Your task to perform on an android device: delete a single message in the gmail app Image 0: 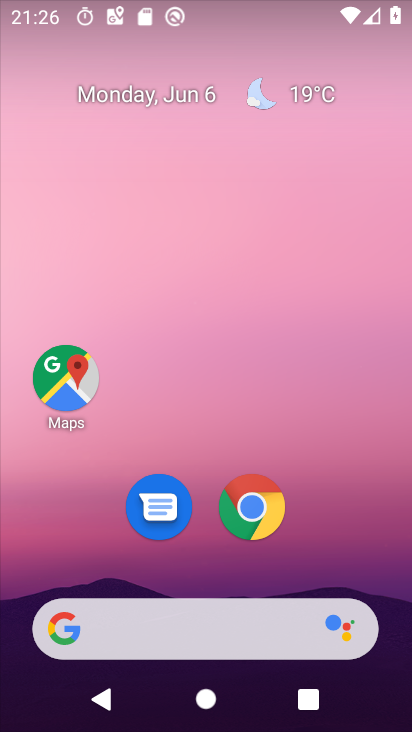
Step 0: press home button
Your task to perform on an android device: delete a single message in the gmail app Image 1: 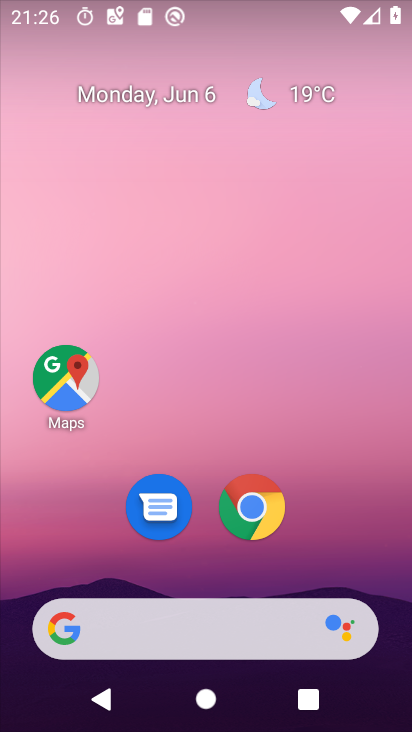
Step 1: drag from (360, 572) to (297, 244)
Your task to perform on an android device: delete a single message in the gmail app Image 2: 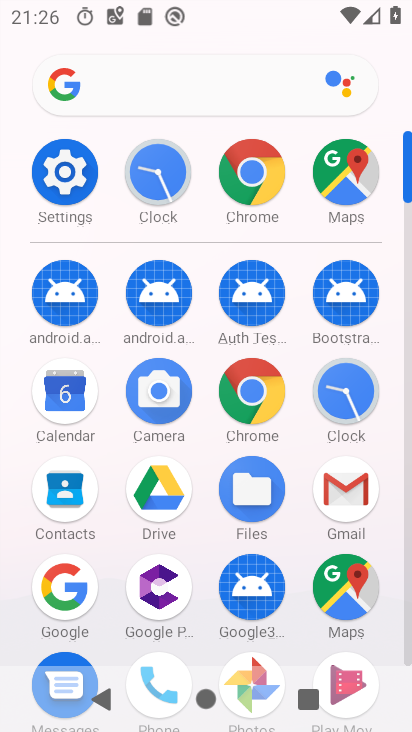
Step 2: click (365, 498)
Your task to perform on an android device: delete a single message in the gmail app Image 3: 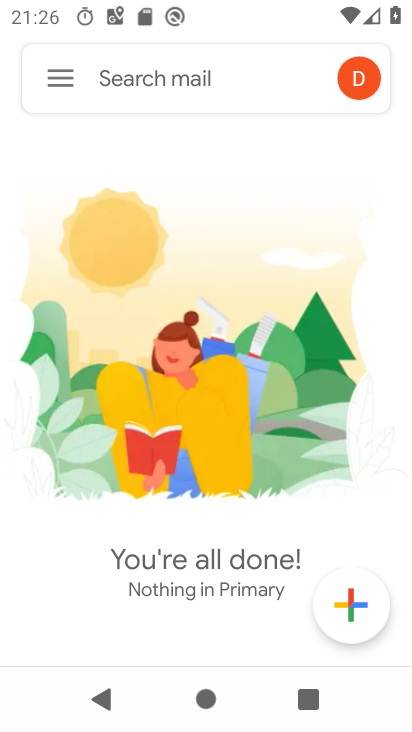
Step 3: click (69, 69)
Your task to perform on an android device: delete a single message in the gmail app Image 4: 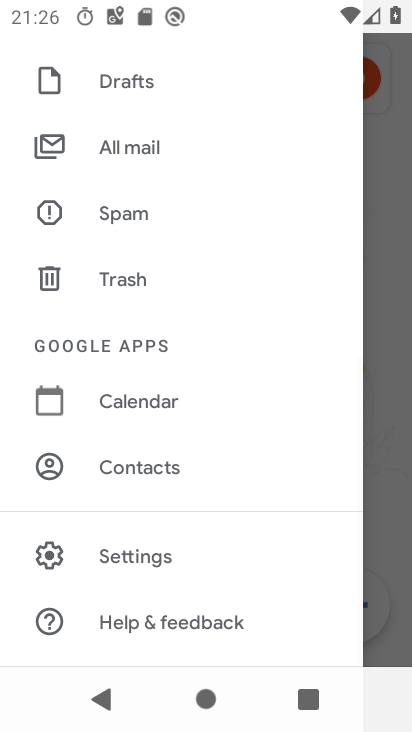
Step 4: task complete